Your task to perform on an android device: set default search engine in the chrome app Image 0: 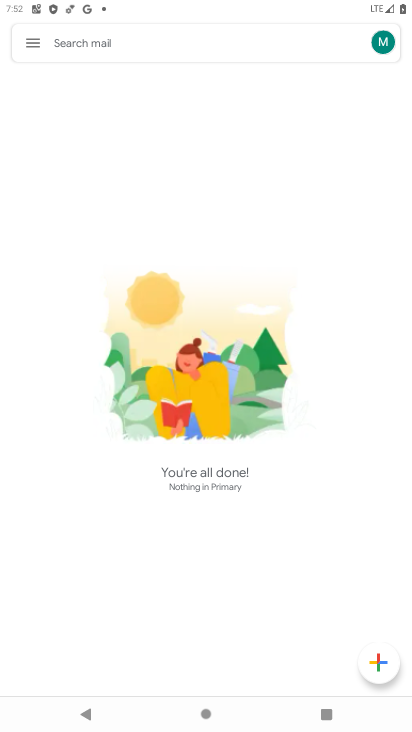
Step 0: click (294, 150)
Your task to perform on an android device: set default search engine in the chrome app Image 1: 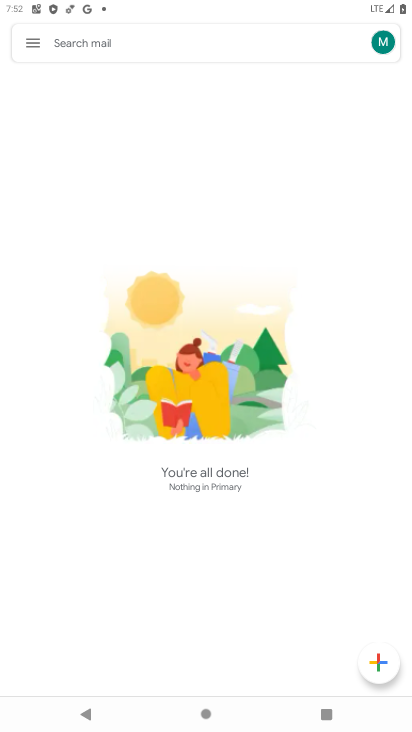
Step 1: drag from (287, 182) to (287, 57)
Your task to perform on an android device: set default search engine in the chrome app Image 2: 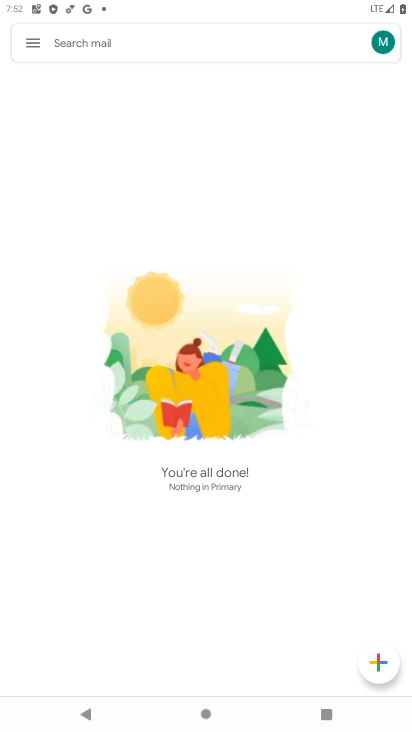
Step 2: press back button
Your task to perform on an android device: set default search engine in the chrome app Image 3: 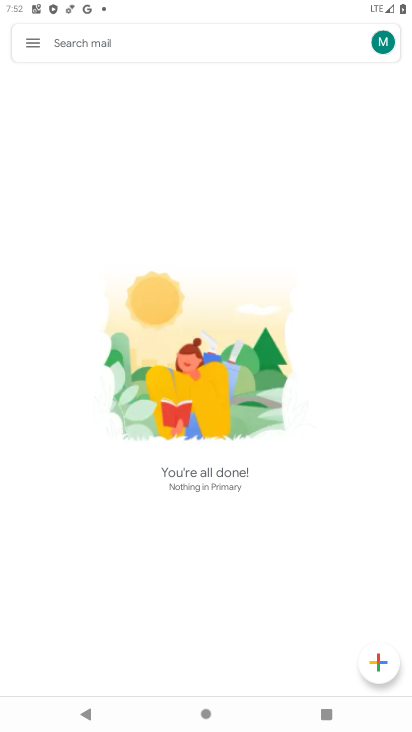
Step 3: drag from (66, 557) to (150, 201)
Your task to perform on an android device: set default search engine in the chrome app Image 4: 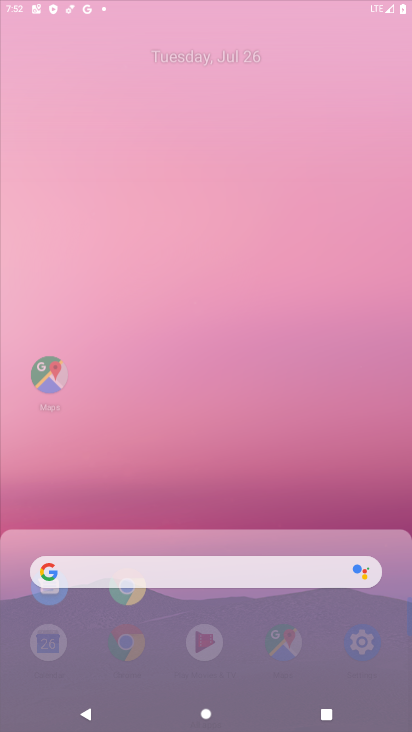
Step 4: drag from (204, 608) to (181, 245)
Your task to perform on an android device: set default search engine in the chrome app Image 5: 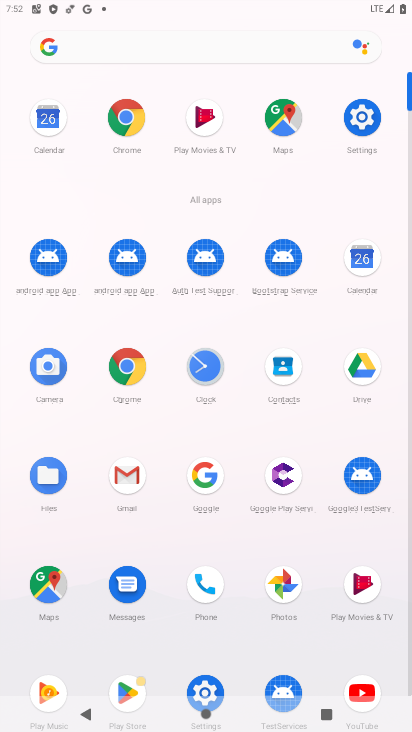
Step 5: drag from (270, 404) to (278, 43)
Your task to perform on an android device: set default search engine in the chrome app Image 6: 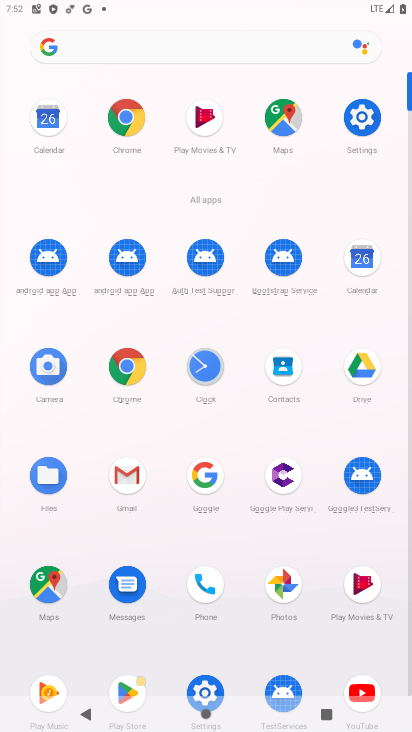
Step 6: click (127, 124)
Your task to perform on an android device: set default search engine in the chrome app Image 7: 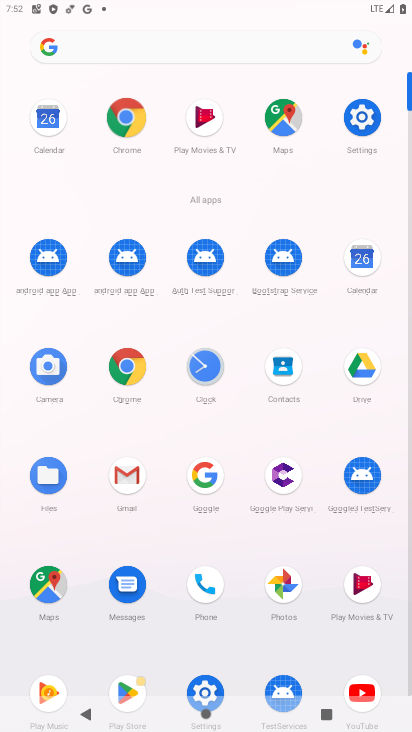
Step 7: click (130, 125)
Your task to perform on an android device: set default search engine in the chrome app Image 8: 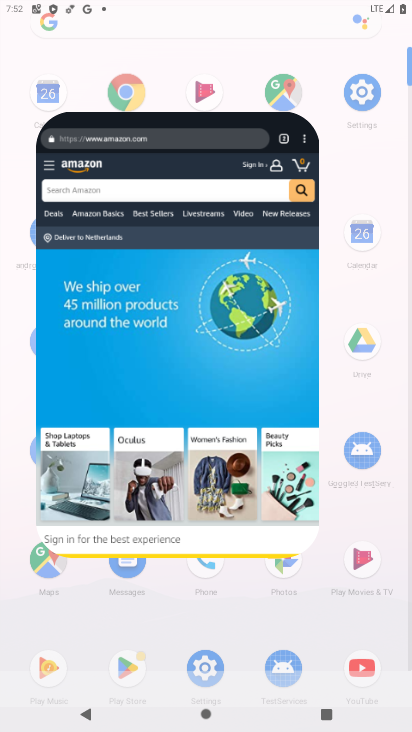
Step 8: click (130, 125)
Your task to perform on an android device: set default search engine in the chrome app Image 9: 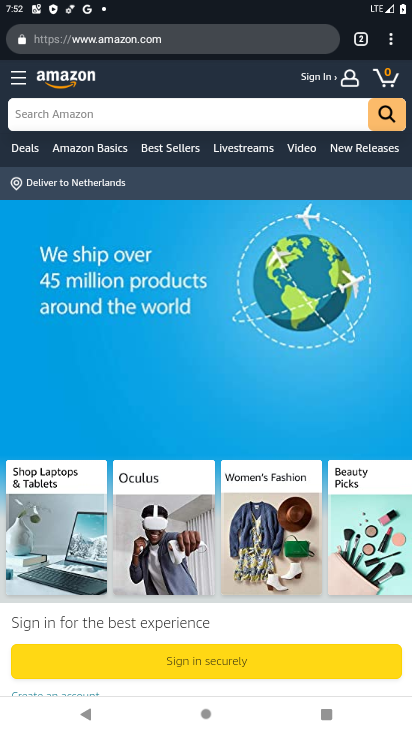
Step 9: click (386, 37)
Your task to perform on an android device: set default search engine in the chrome app Image 10: 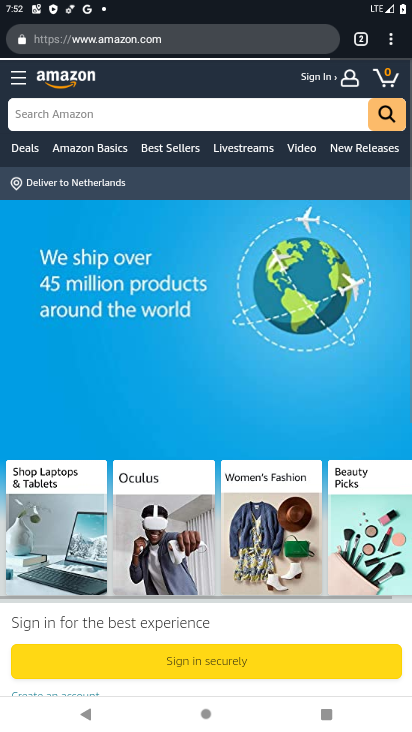
Step 10: drag from (386, 37) to (242, 469)
Your task to perform on an android device: set default search engine in the chrome app Image 11: 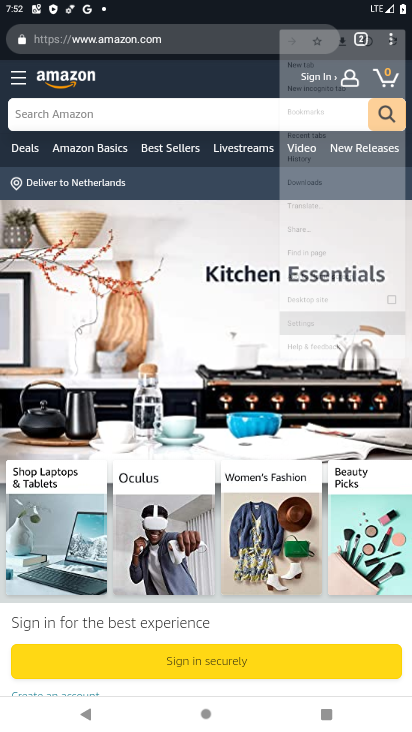
Step 11: click (260, 458)
Your task to perform on an android device: set default search engine in the chrome app Image 12: 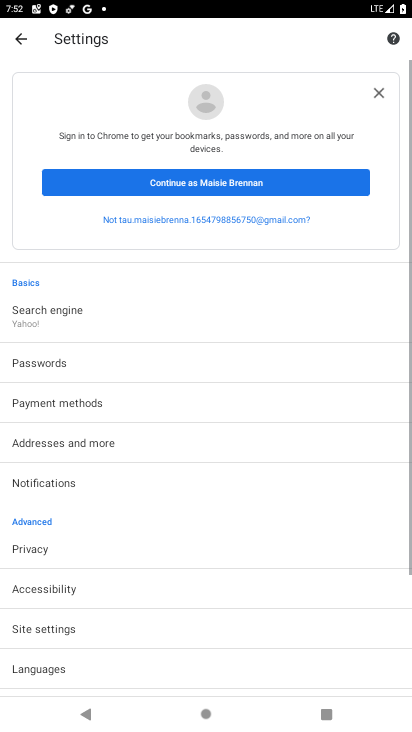
Step 12: drag from (52, 589) to (51, 312)
Your task to perform on an android device: set default search engine in the chrome app Image 13: 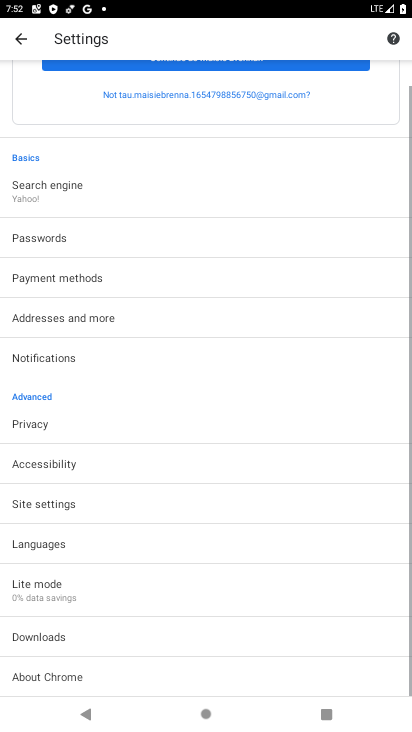
Step 13: drag from (143, 610) to (132, 359)
Your task to perform on an android device: set default search engine in the chrome app Image 14: 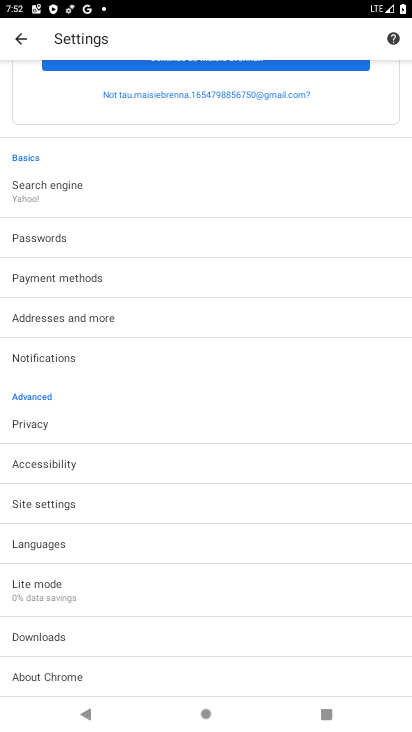
Step 14: click (35, 506)
Your task to perform on an android device: set default search engine in the chrome app Image 15: 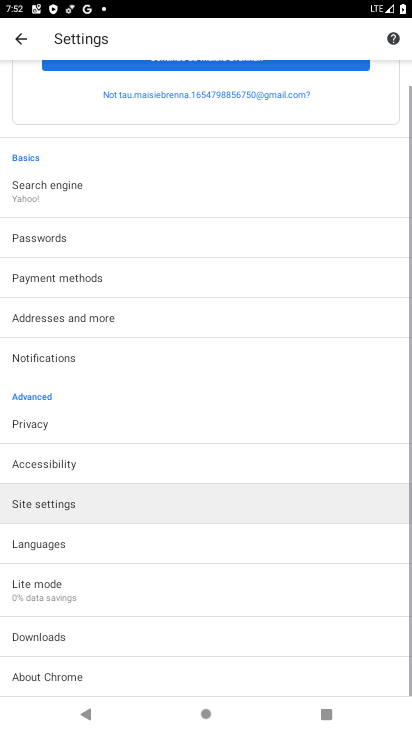
Step 15: click (43, 503)
Your task to perform on an android device: set default search engine in the chrome app Image 16: 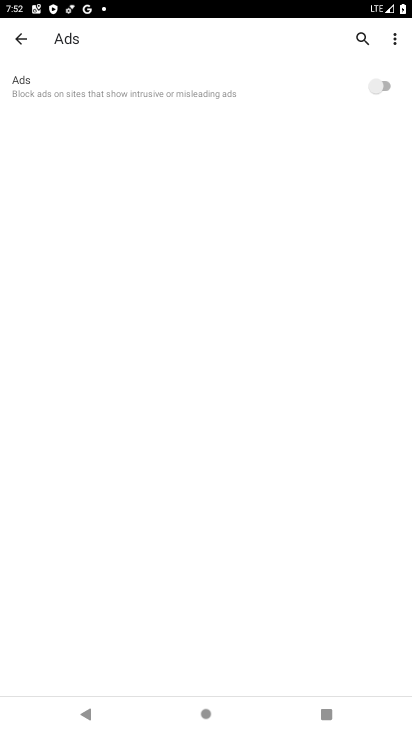
Step 16: click (18, 32)
Your task to perform on an android device: set default search engine in the chrome app Image 17: 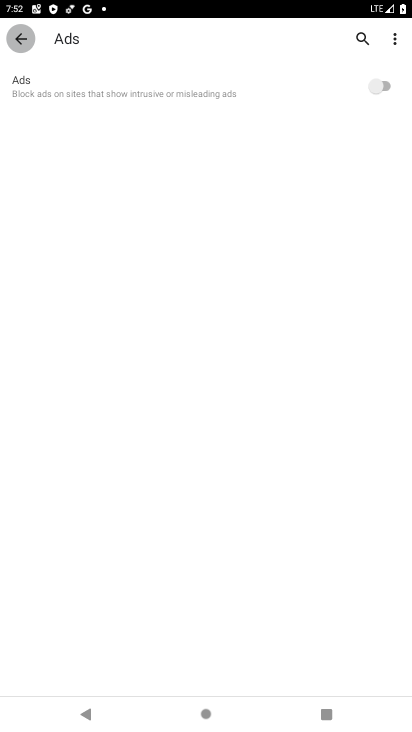
Step 17: click (18, 33)
Your task to perform on an android device: set default search engine in the chrome app Image 18: 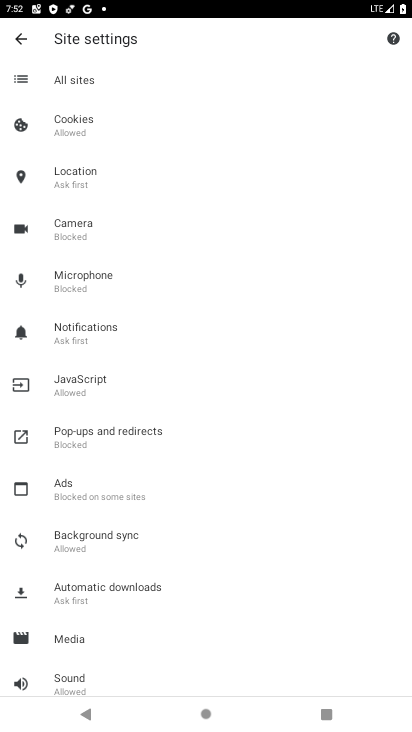
Step 18: click (16, 46)
Your task to perform on an android device: set default search engine in the chrome app Image 19: 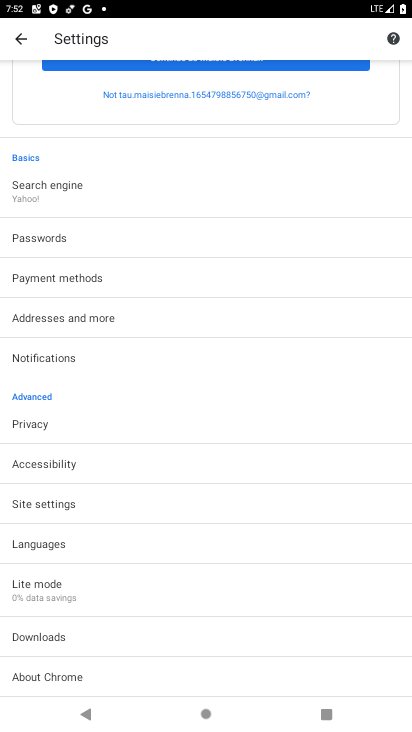
Step 19: click (42, 180)
Your task to perform on an android device: set default search engine in the chrome app Image 20: 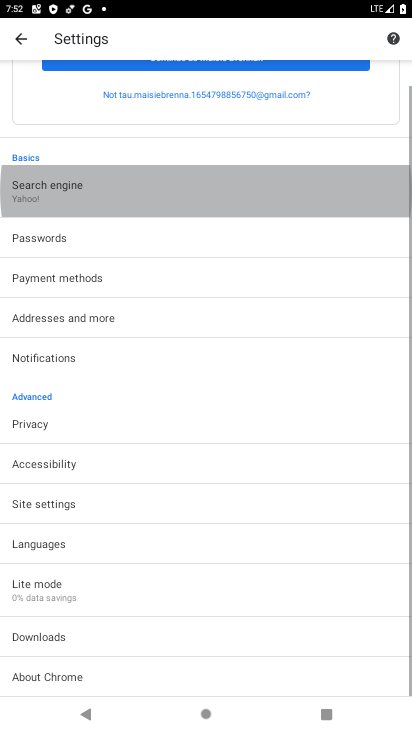
Step 20: click (43, 180)
Your task to perform on an android device: set default search engine in the chrome app Image 21: 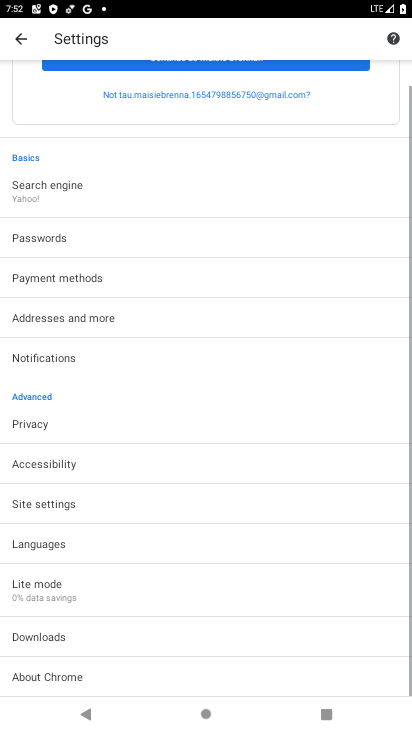
Step 21: click (43, 180)
Your task to perform on an android device: set default search engine in the chrome app Image 22: 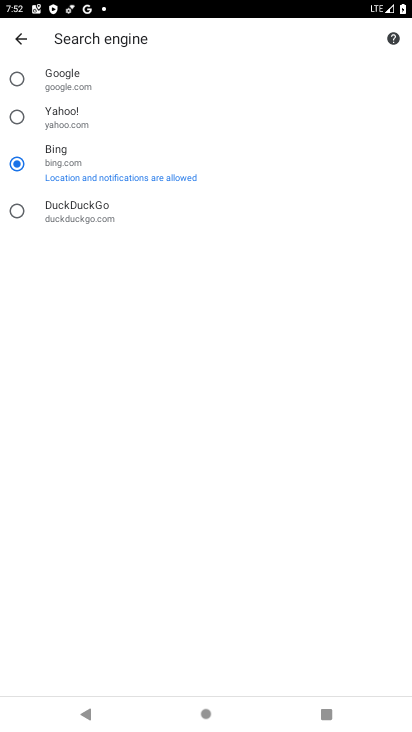
Step 22: click (18, 81)
Your task to perform on an android device: set default search engine in the chrome app Image 23: 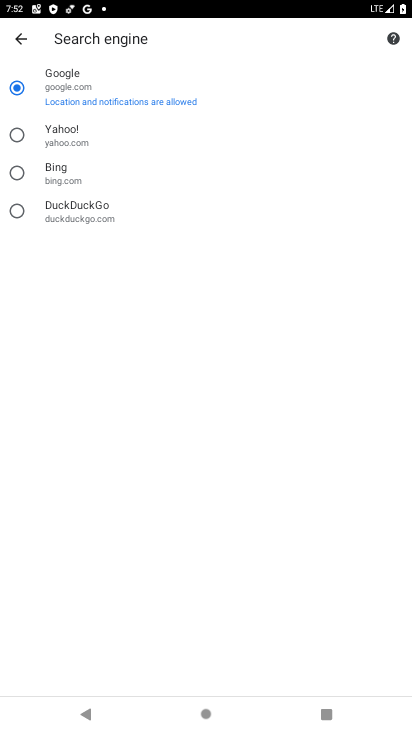
Step 23: task complete